Your task to perform on an android device: turn on airplane mode Image 0: 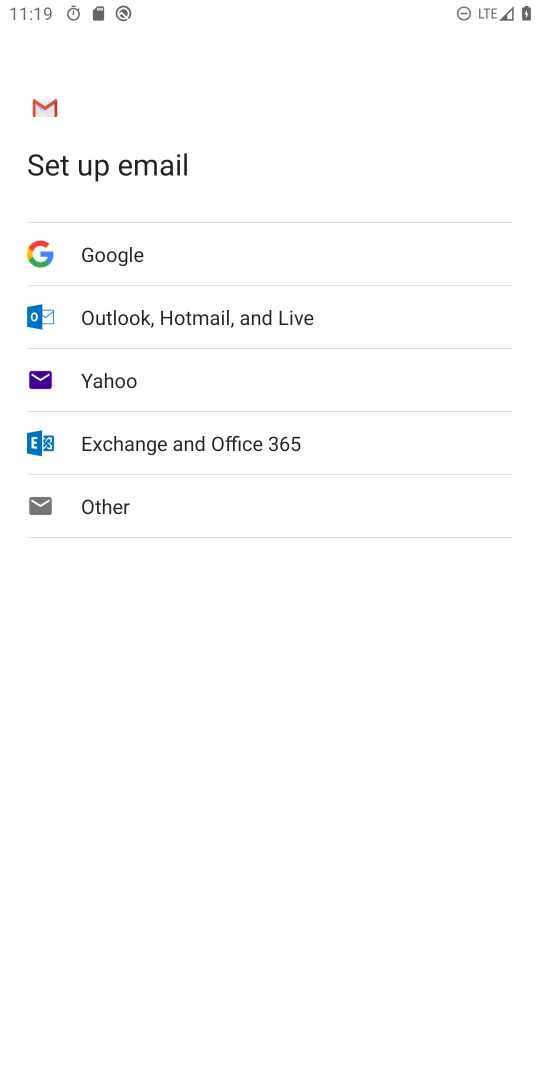
Step 0: drag from (314, 413) to (390, 653)
Your task to perform on an android device: turn on airplane mode Image 1: 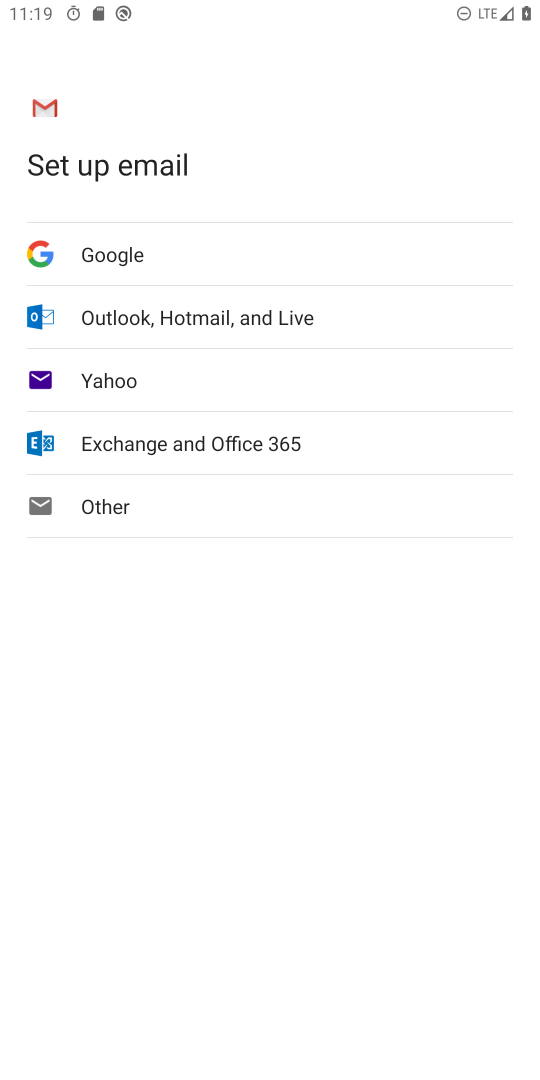
Step 1: click (326, 16)
Your task to perform on an android device: turn on airplane mode Image 2: 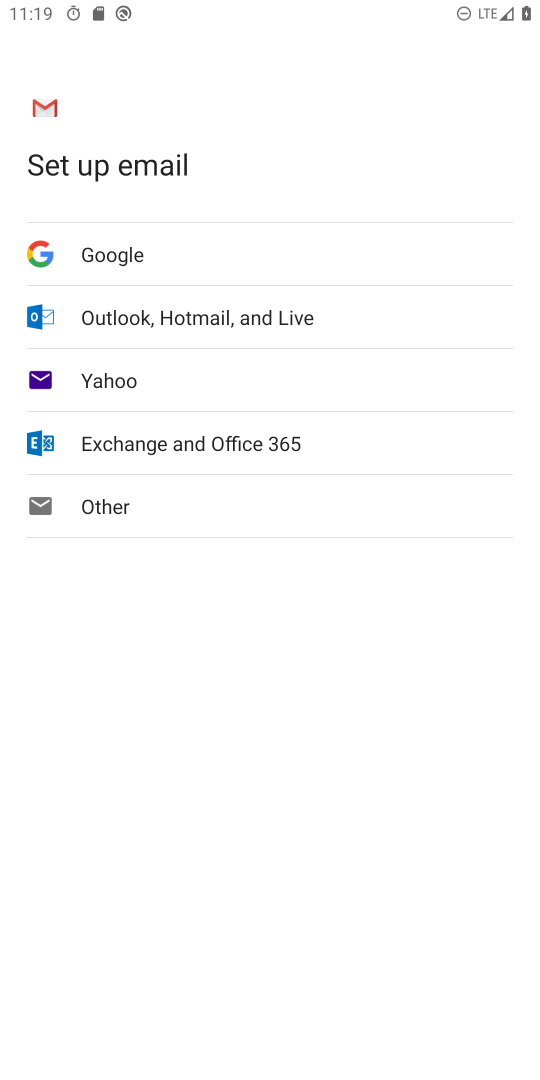
Step 2: drag from (326, 16) to (444, 628)
Your task to perform on an android device: turn on airplane mode Image 3: 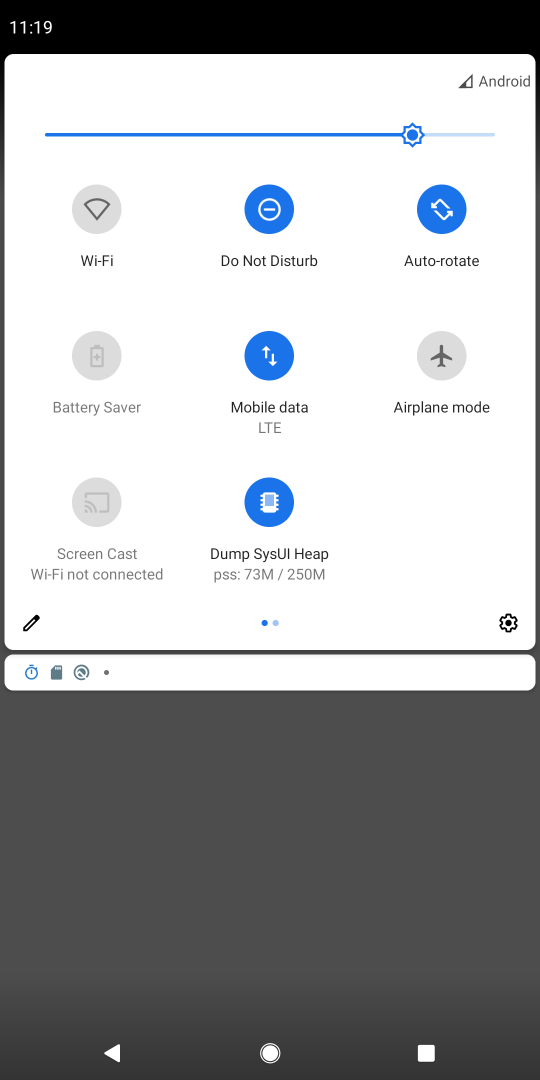
Step 3: click (501, 150)
Your task to perform on an android device: turn on airplane mode Image 4: 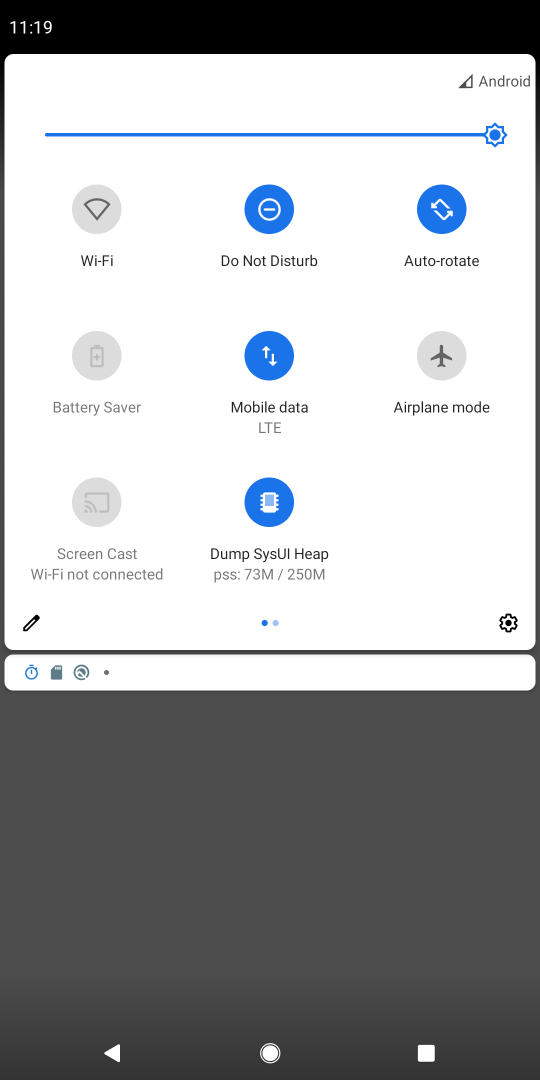
Step 4: click (444, 365)
Your task to perform on an android device: turn on airplane mode Image 5: 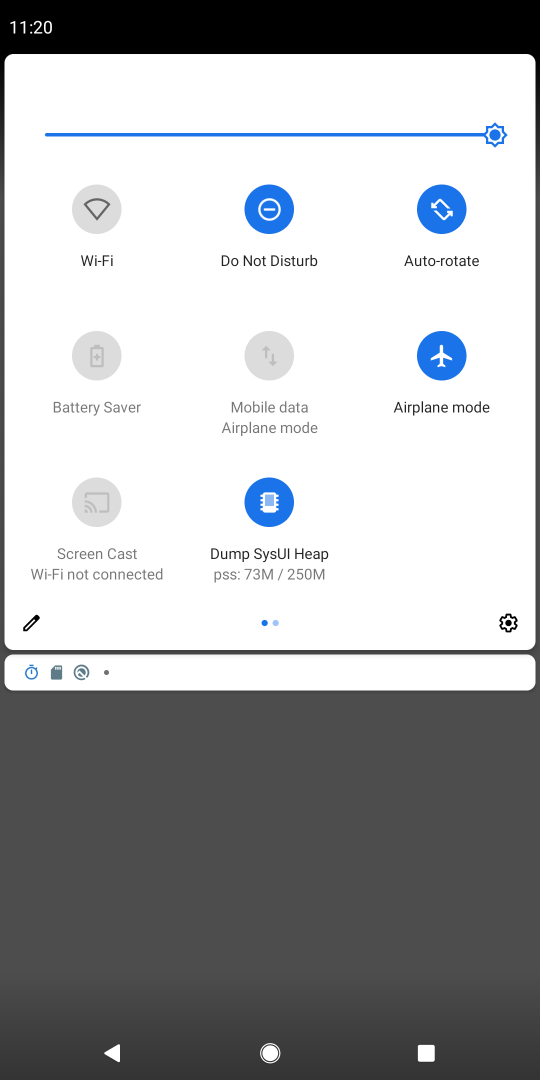
Step 5: task complete